Your task to perform on an android device: Do I have any events today? Image 0: 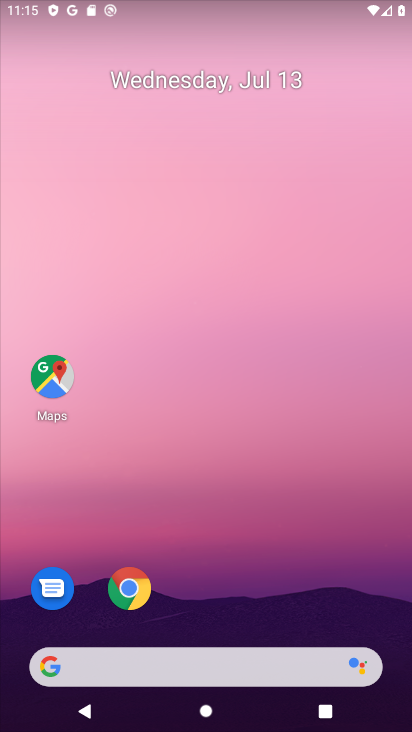
Step 0: drag from (214, 628) to (229, 123)
Your task to perform on an android device: Do I have any events today? Image 1: 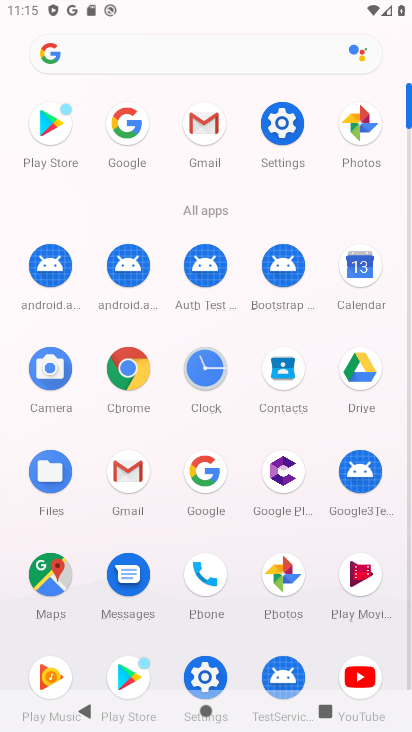
Step 1: click (356, 270)
Your task to perform on an android device: Do I have any events today? Image 2: 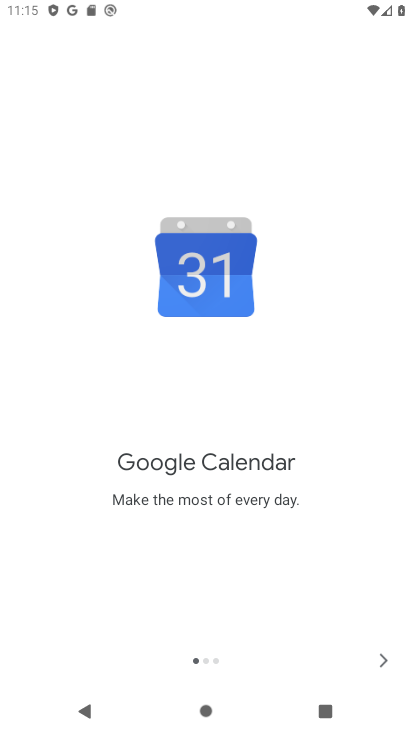
Step 2: click (381, 660)
Your task to perform on an android device: Do I have any events today? Image 3: 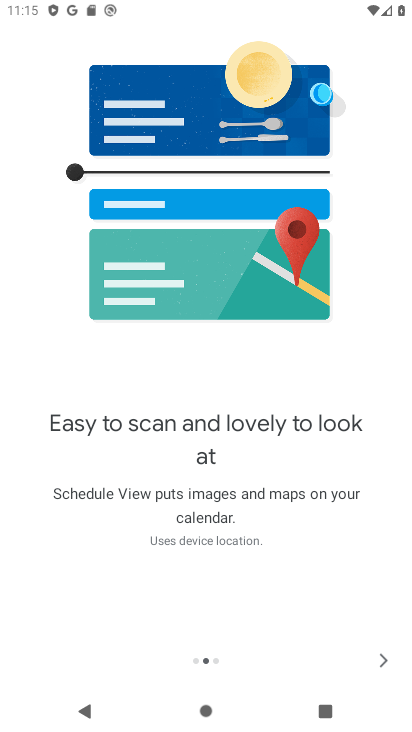
Step 3: click (382, 660)
Your task to perform on an android device: Do I have any events today? Image 4: 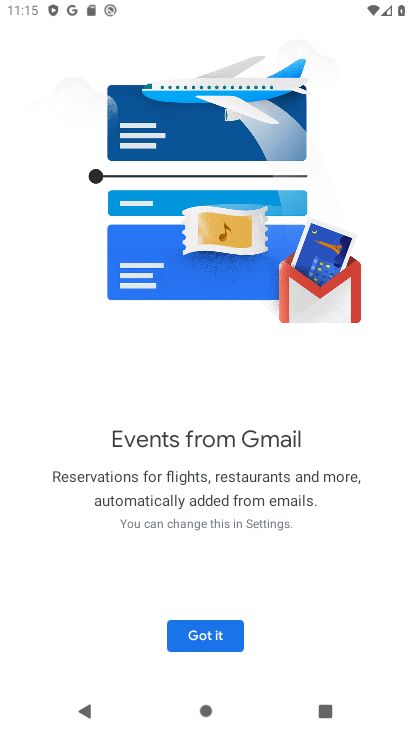
Step 4: click (216, 644)
Your task to perform on an android device: Do I have any events today? Image 5: 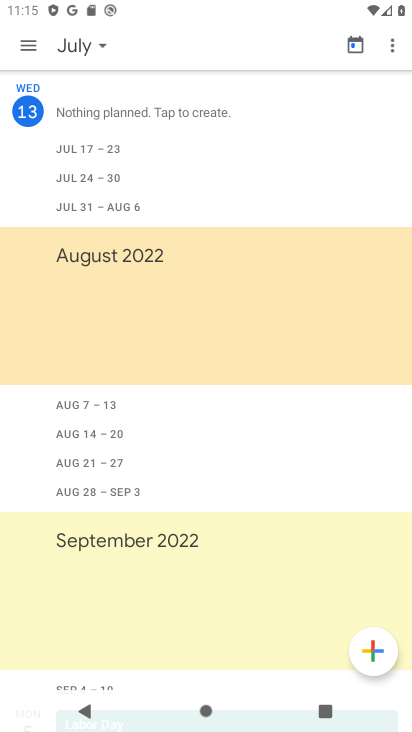
Step 5: click (90, 50)
Your task to perform on an android device: Do I have any events today? Image 6: 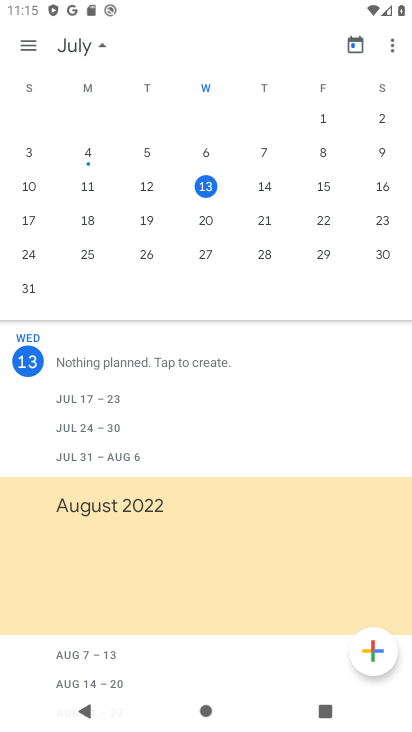
Step 6: click (212, 184)
Your task to perform on an android device: Do I have any events today? Image 7: 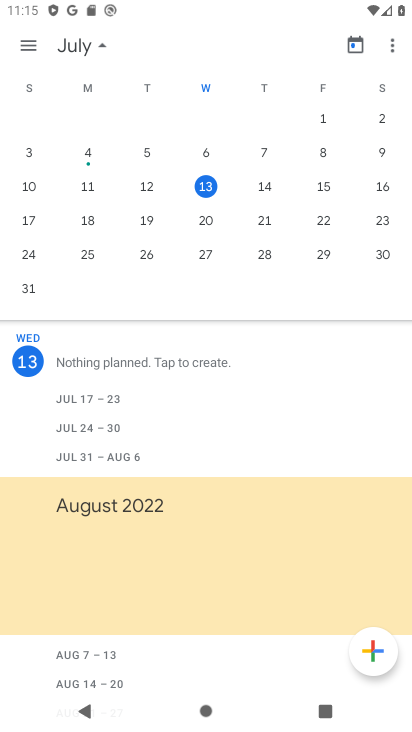
Step 7: task complete